Your task to perform on an android device: visit the assistant section in the google photos Image 0: 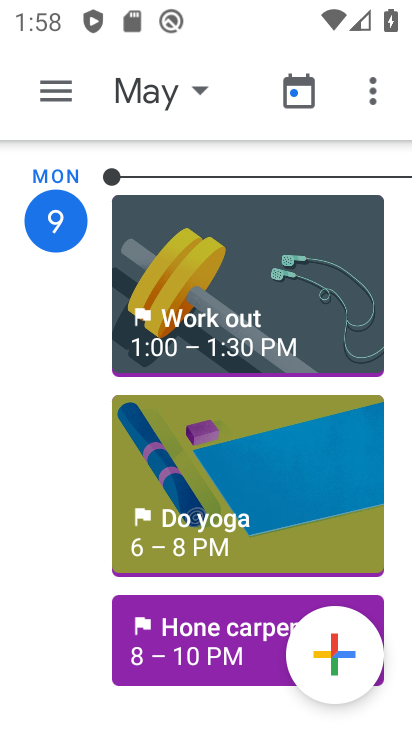
Step 0: press home button
Your task to perform on an android device: visit the assistant section in the google photos Image 1: 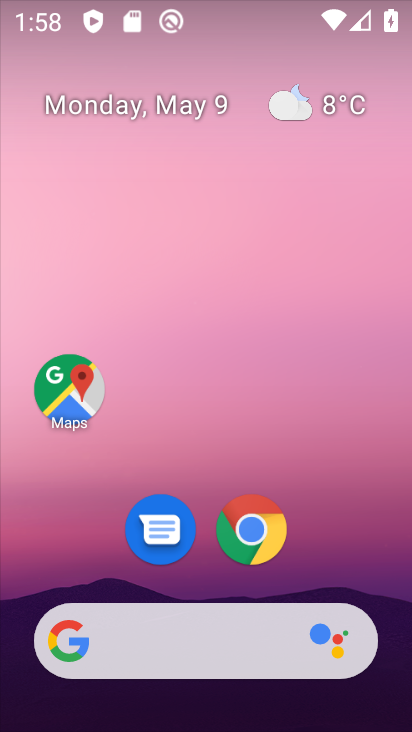
Step 1: drag from (241, 681) to (225, 226)
Your task to perform on an android device: visit the assistant section in the google photos Image 2: 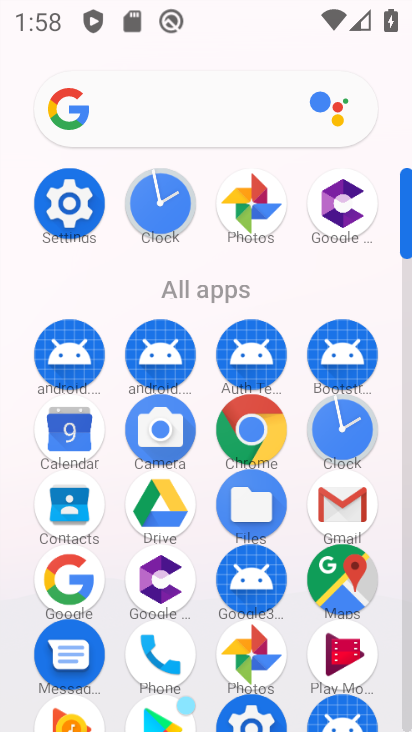
Step 2: click (261, 645)
Your task to perform on an android device: visit the assistant section in the google photos Image 3: 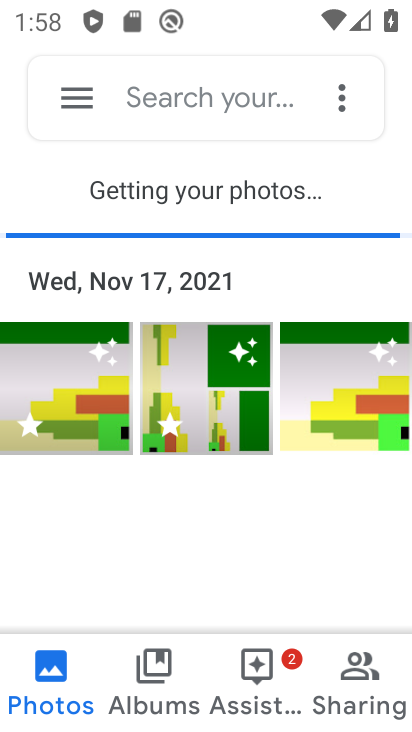
Step 3: click (244, 676)
Your task to perform on an android device: visit the assistant section in the google photos Image 4: 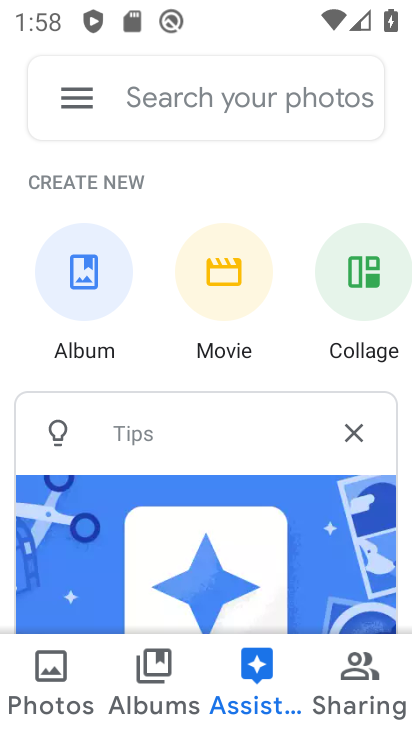
Step 4: task complete